Your task to perform on an android device: Open internet settings Image 0: 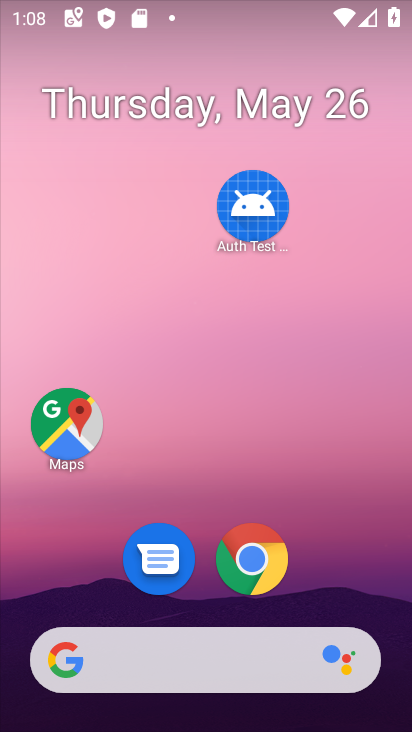
Step 0: drag from (346, 572) to (292, 2)
Your task to perform on an android device: Open internet settings Image 1: 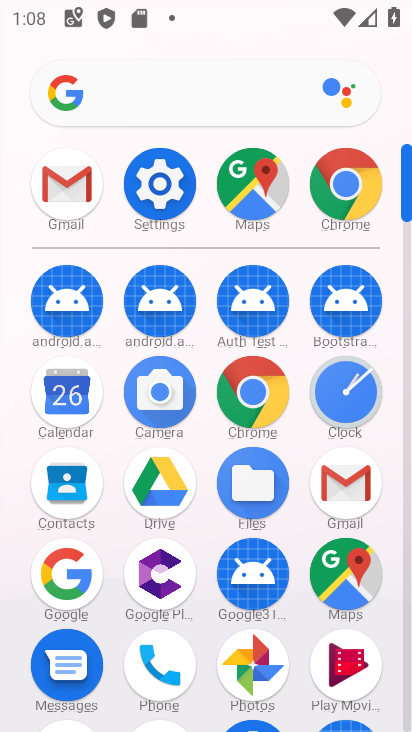
Step 1: click (164, 176)
Your task to perform on an android device: Open internet settings Image 2: 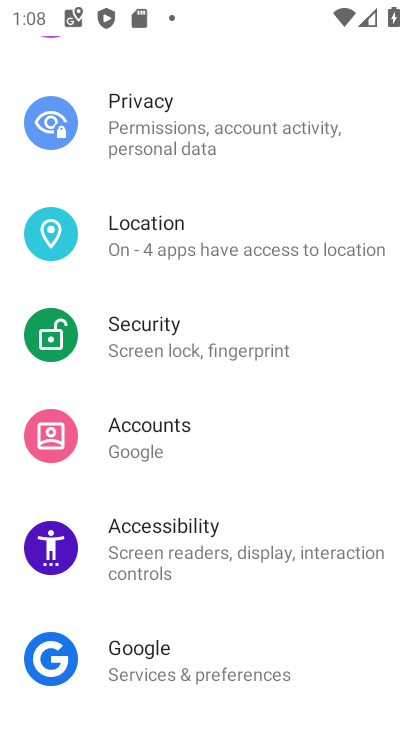
Step 2: drag from (194, 674) to (149, 700)
Your task to perform on an android device: Open internet settings Image 3: 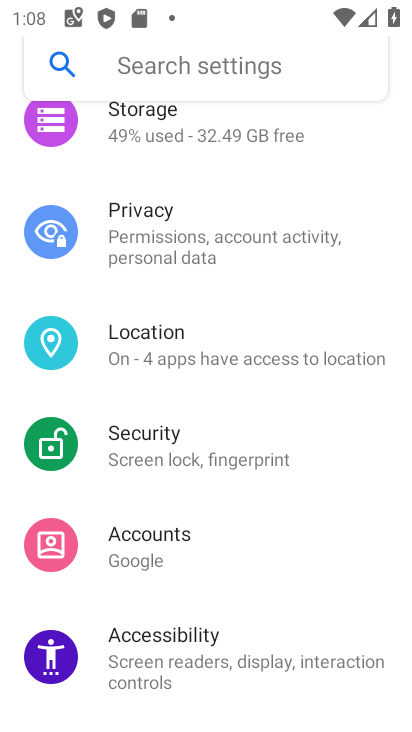
Step 3: drag from (162, 173) to (131, 687)
Your task to perform on an android device: Open internet settings Image 4: 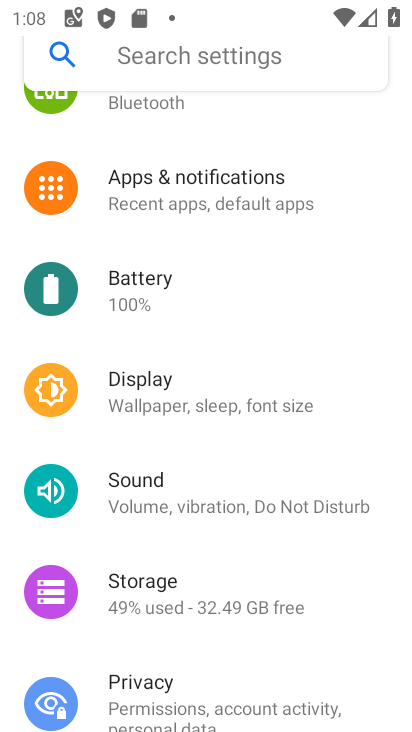
Step 4: drag from (150, 207) to (118, 695)
Your task to perform on an android device: Open internet settings Image 5: 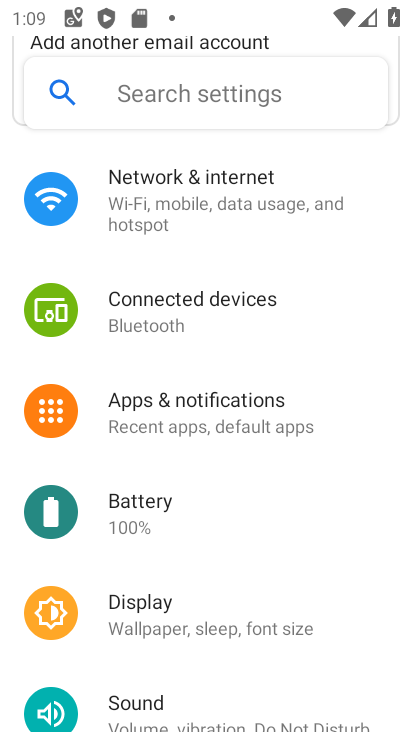
Step 5: click (180, 198)
Your task to perform on an android device: Open internet settings Image 6: 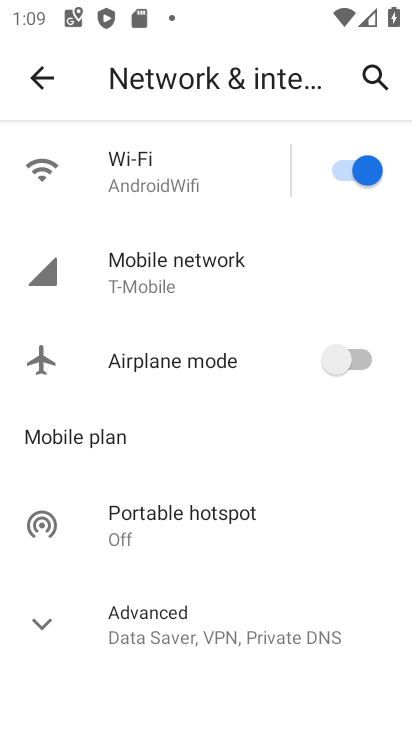
Step 6: task complete